Your task to perform on an android device: open the mobile data screen to see how much data has been used Image 0: 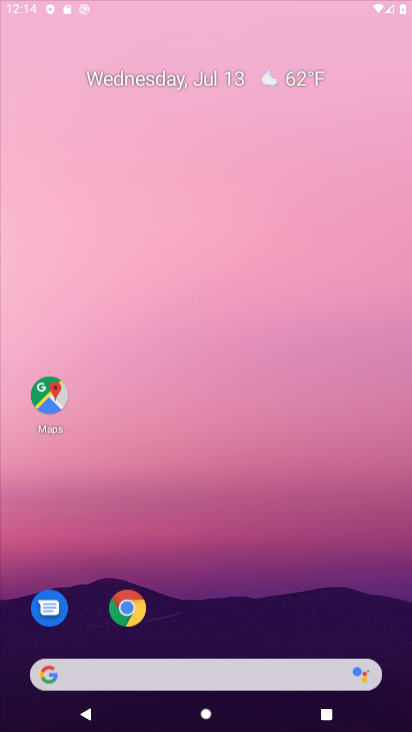
Step 0: drag from (322, 512) to (311, 101)
Your task to perform on an android device: open the mobile data screen to see how much data has been used Image 1: 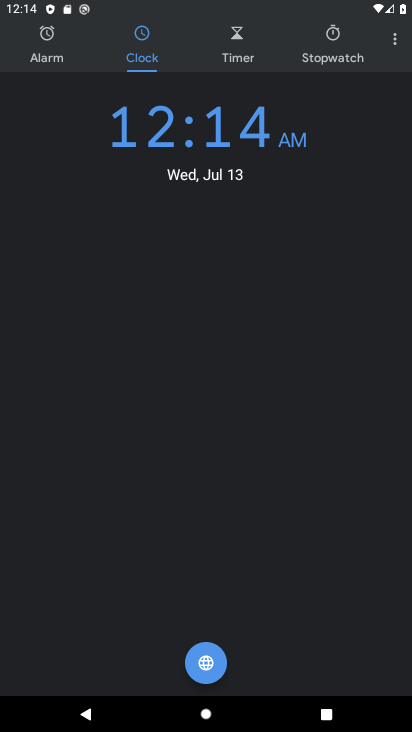
Step 1: press home button
Your task to perform on an android device: open the mobile data screen to see how much data has been used Image 2: 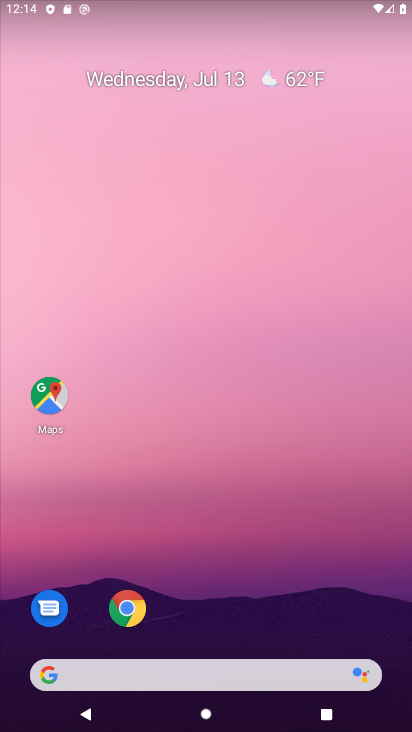
Step 2: drag from (347, 599) to (357, 159)
Your task to perform on an android device: open the mobile data screen to see how much data has been used Image 3: 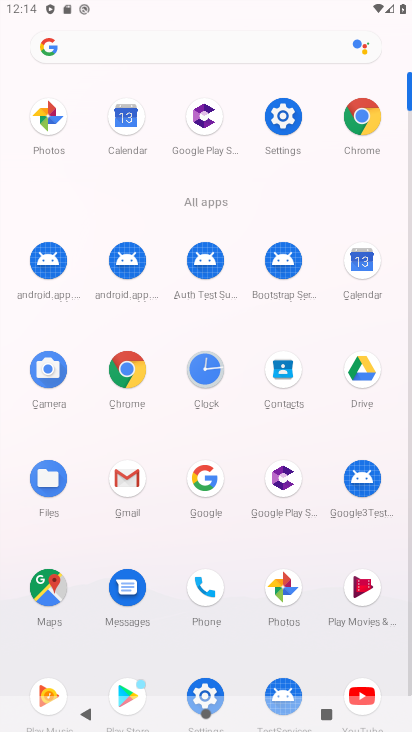
Step 3: click (287, 128)
Your task to perform on an android device: open the mobile data screen to see how much data has been used Image 4: 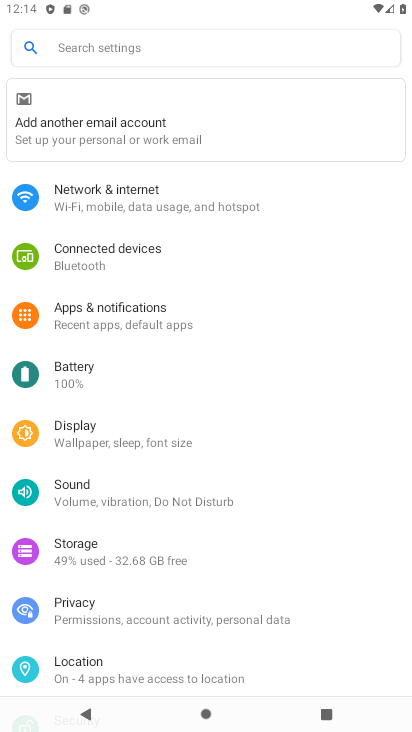
Step 4: drag from (353, 446) to (353, 329)
Your task to perform on an android device: open the mobile data screen to see how much data has been used Image 5: 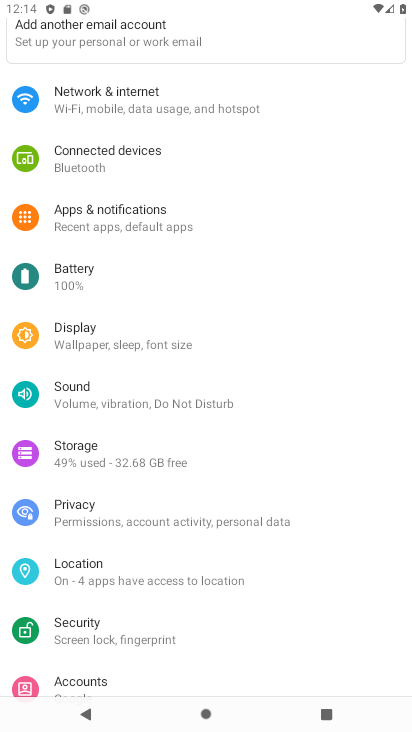
Step 5: drag from (333, 484) to (346, 348)
Your task to perform on an android device: open the mobile data screen to see how much data has been used Image 6: 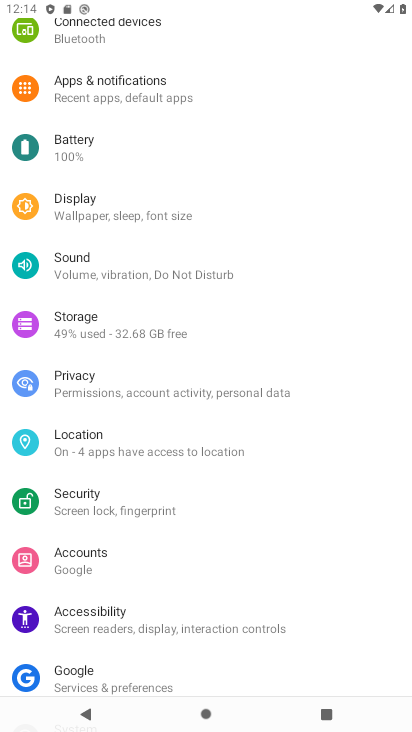
Step 6: drag from (334, 488) to (337, 350)
Your task to perform on an android device: open the mobile data screen to see how much data has been used Image 7: 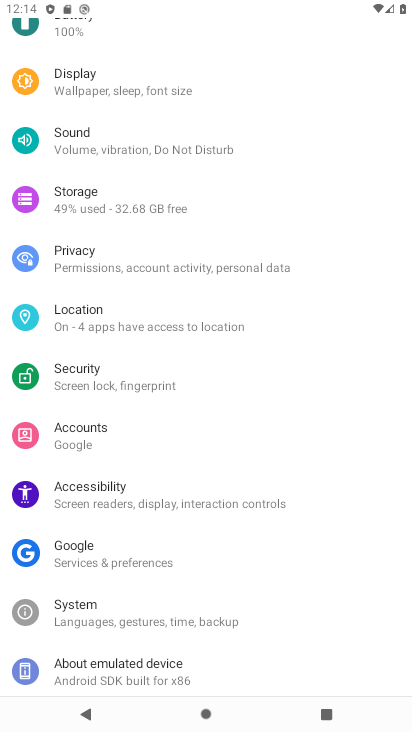
Step 7: drag from (330, 512) to (344, 379)
Your task to perform on an android device: open the mobile data screen to see how much data has been used Image 8: 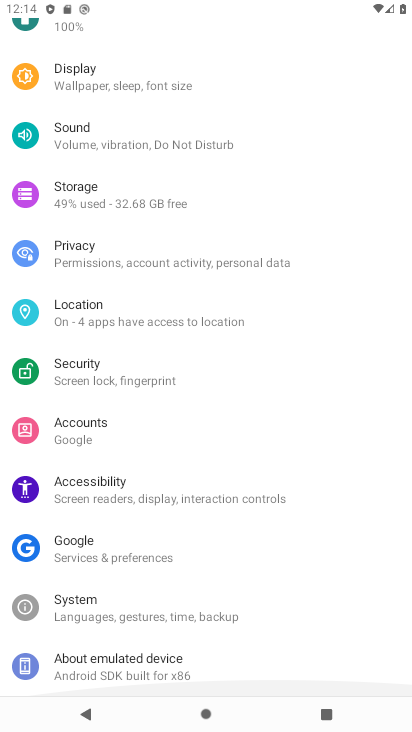
Step 8: drag from (345, 295) to (339, 409)
Your task to perform on an android device: open the mobile data screen to see how much data has been used Image 9: 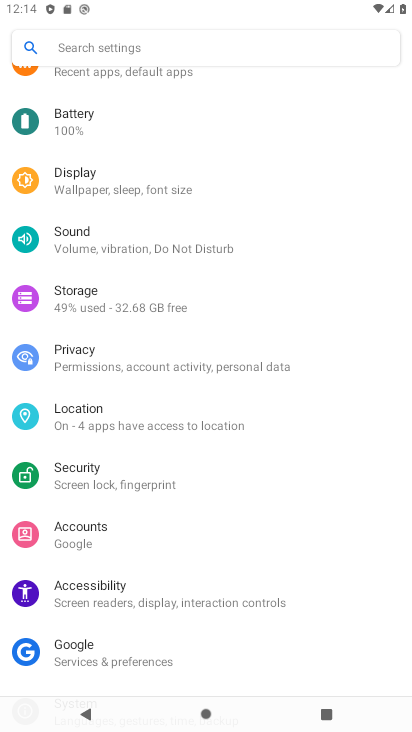
Step 9: drag from (339, 246) to (340, 381)
Your task to perform on an android device: open the mobile data screen to see how much data has been used Image 10: 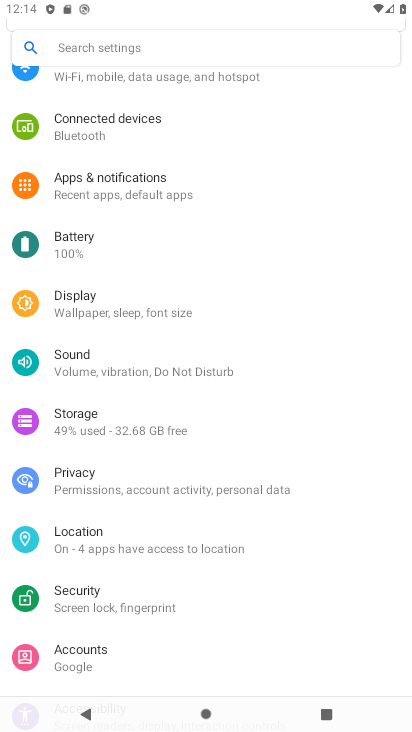
Step 10: drag from (335, 218) to (330, 368)
Your task to perform on an android device: open the mobile data screen to see how much data has been used Image 11: 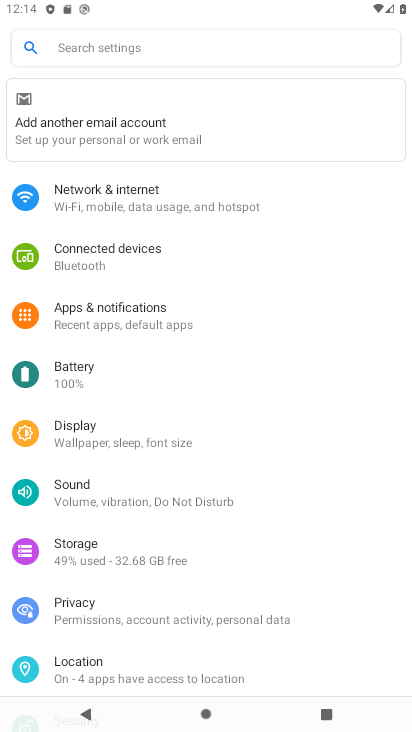
Step 11: drag from (326, 251) to (326, 363)
Your task to perform on an android device: open the mobile data screen to see how much data has been used Image 12: 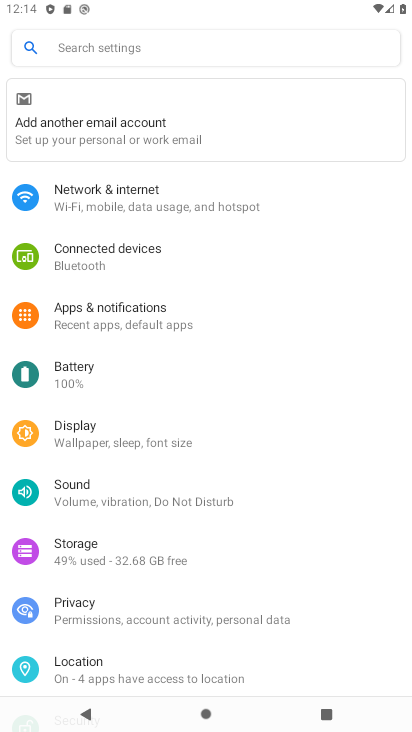
Step 12: click (253, 198)
Your task to perform on an android device: open the mobile data screen to see how much data has been used Image 13: 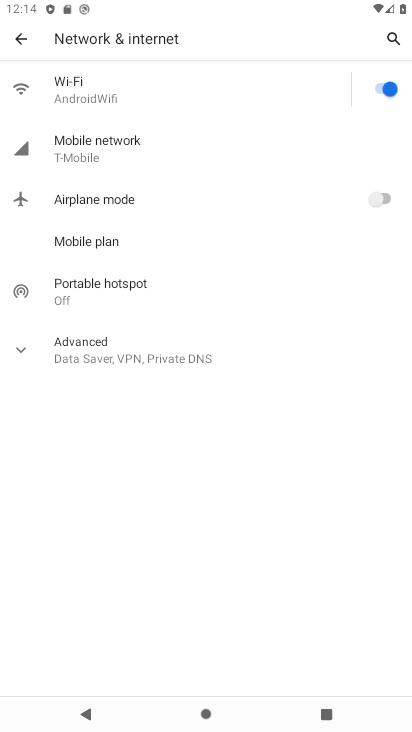
Step 13: click (123, 148)
Your task to perform on an android device: open the mobile data screen to see how much data has been used Image 14: 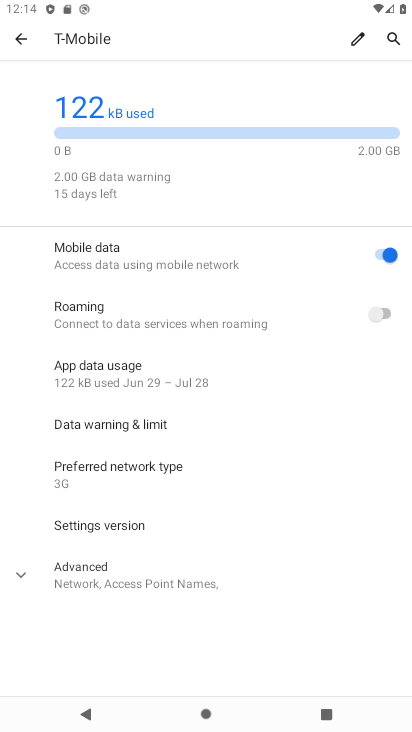
Step 14: click (166, 379)
Your task to perform on an android device: open the mobile data screen to see how much data has been used Image 15: 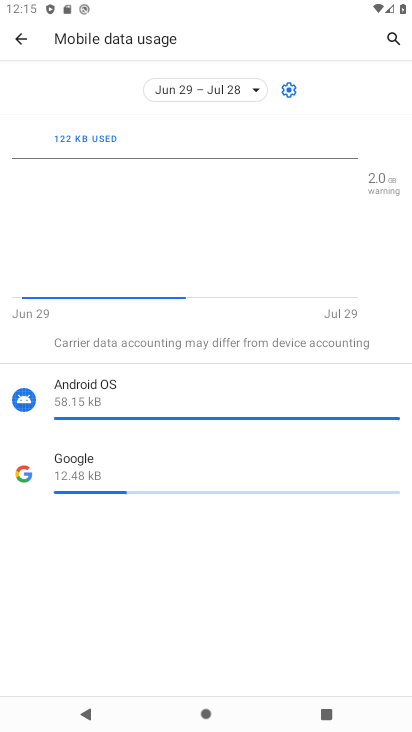
Step 15: task complete